Your task to perform on an android device: turn off improve location accuracy Image 0: 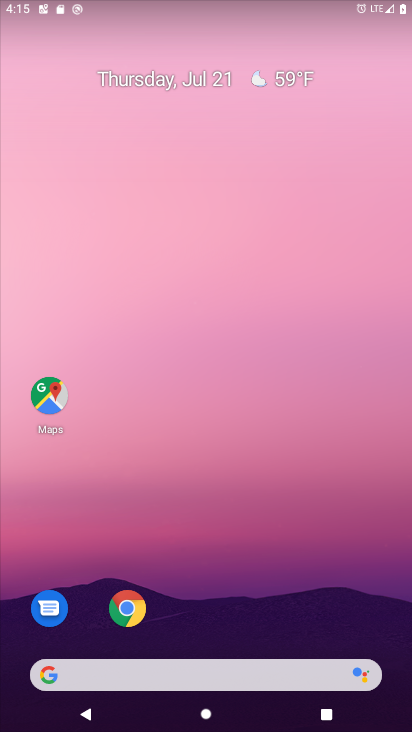
Step 0: drag from (265, 678) to (325, 102)
Your task to perform on an android device: turn off improve location accuracy Image 1: 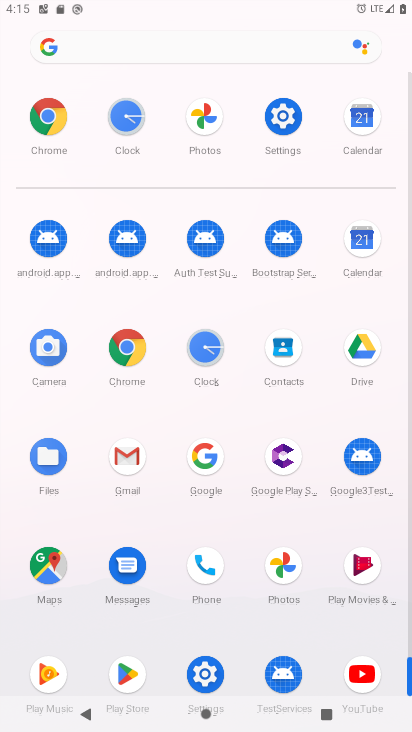
Step 1: click (270, 120)
Your task to perform on an android device: turn off improve location accuracy Image 2: 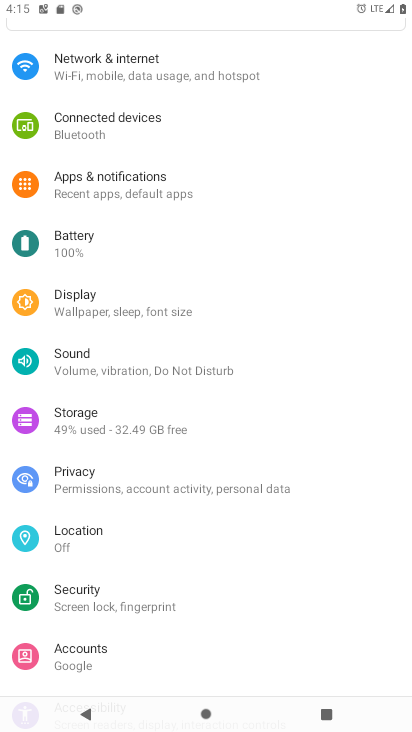
Step 2: click (134, 535)
Your task to perform on an android device: turn off improve location accuracy Image 3: 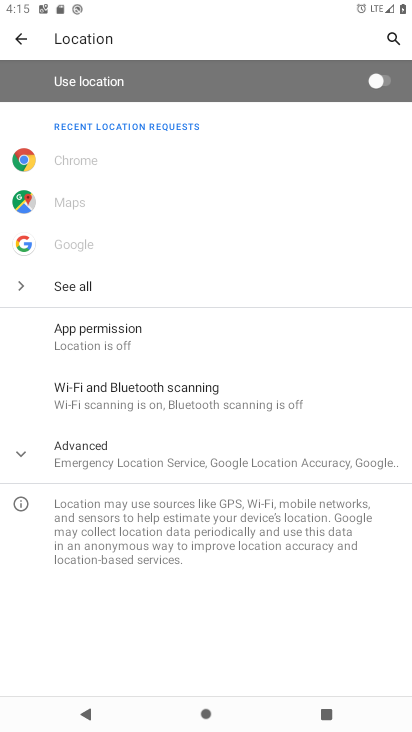
Step 3: click (185, 452)
Your task to perform on an android device: turn off improve location accuracy Image 4: 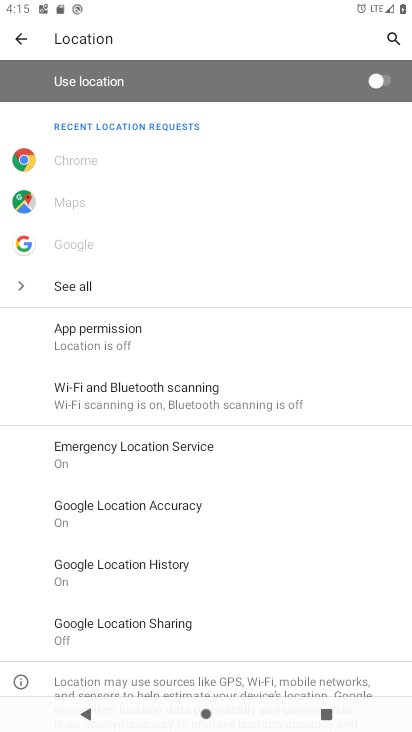
Step 4: click (175, 510)
Your task to perform on an android device: turn off improve location accuracy Image 5: 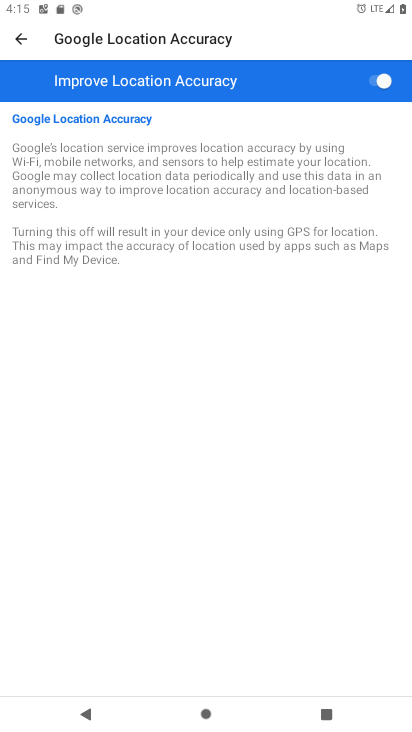
Step 5: click (377, 83)
Your task to perform on an android device: turn off improve location accuracy Image 6: 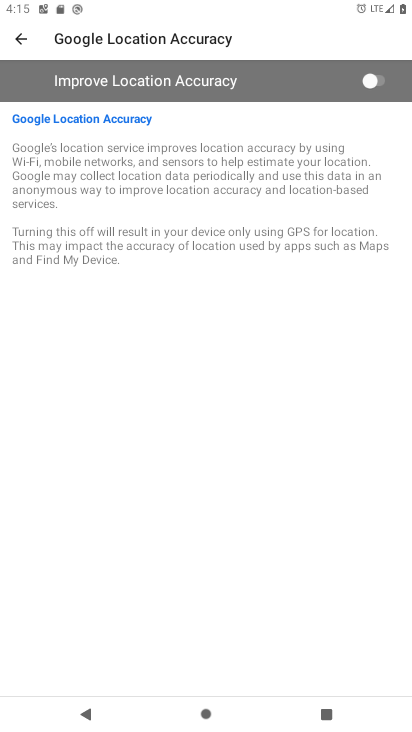
Step 6: task complete